Your task to perform on an android device: Open Youtube and go to "Your channel" Image 0: 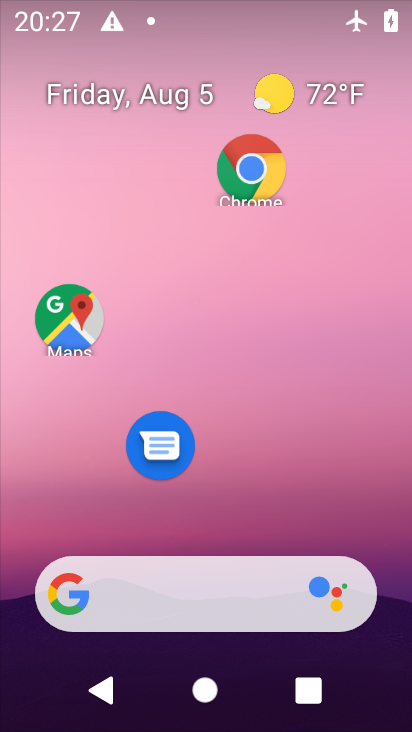
Step 0: drag from (228, 499) to (190, 211)
Your task to perform on an android device: Open Youtube and go to "Your channel" Image 1: 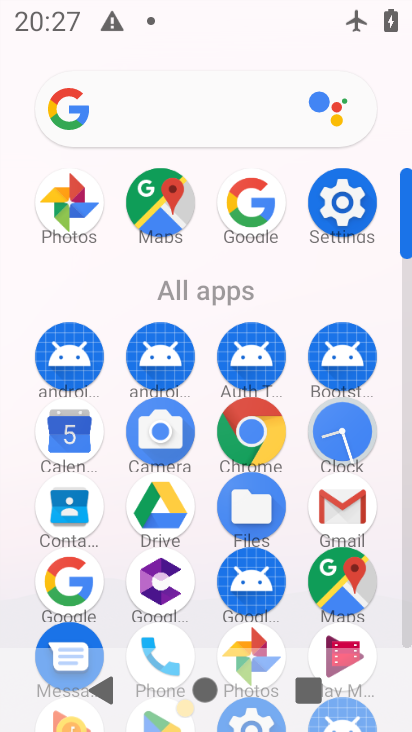
Step 1: drag from (109, 537) to (130, 194)
Your task to perform on an android device: Open Youtube and go to "Your channel" Image 2: 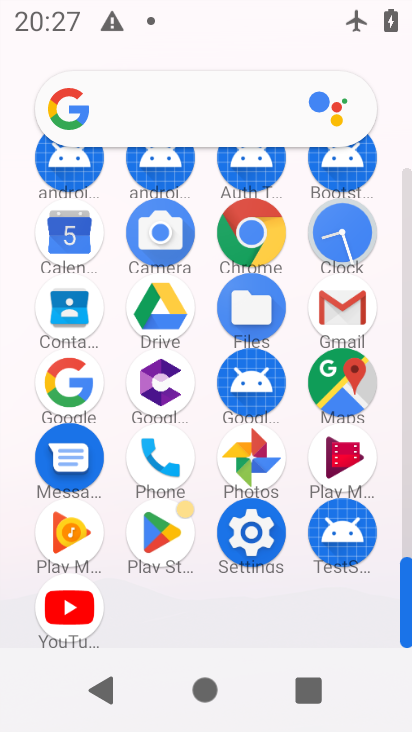
Step 2: click (68, 604)
Your task to perform on an android device: Open Youtube and go to "Your channel" Image 3: 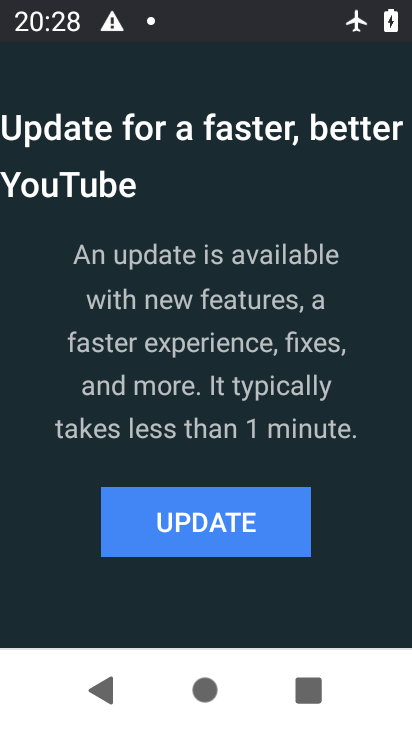
Step 3: click (229, 529)
Your task to perform on an android device: Open Youtube and go to "Your channel" Image 4: 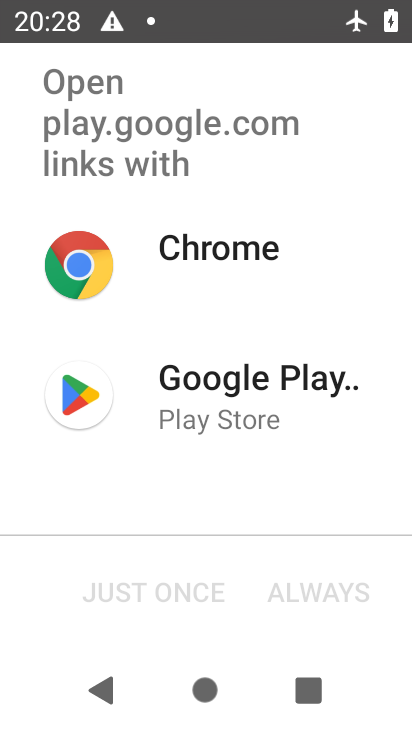
Step 4: click (225, 415)
Your task to perform on an android device: Open Youtube and go to "Your channel" Image 5: 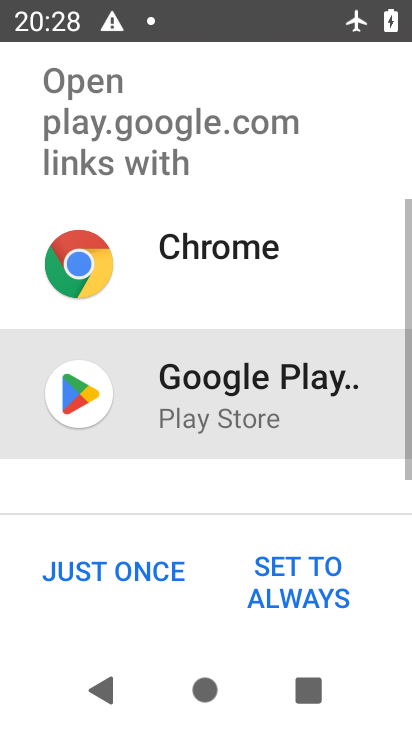
Step 5: click (108, 565)
Your task to perform on an android device: Open Youtube and go to "Your channel" Image 6: 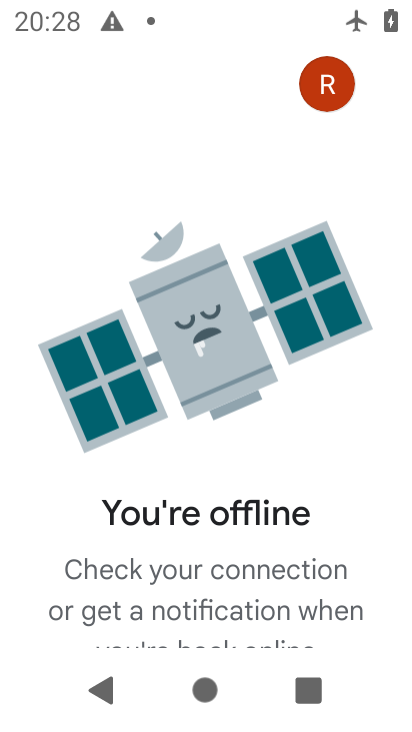
Step 6: task complete